Your task to perform on an android device: open app "Speedtest by Ookla" (install if not already installed) and go to login screen Image 0: 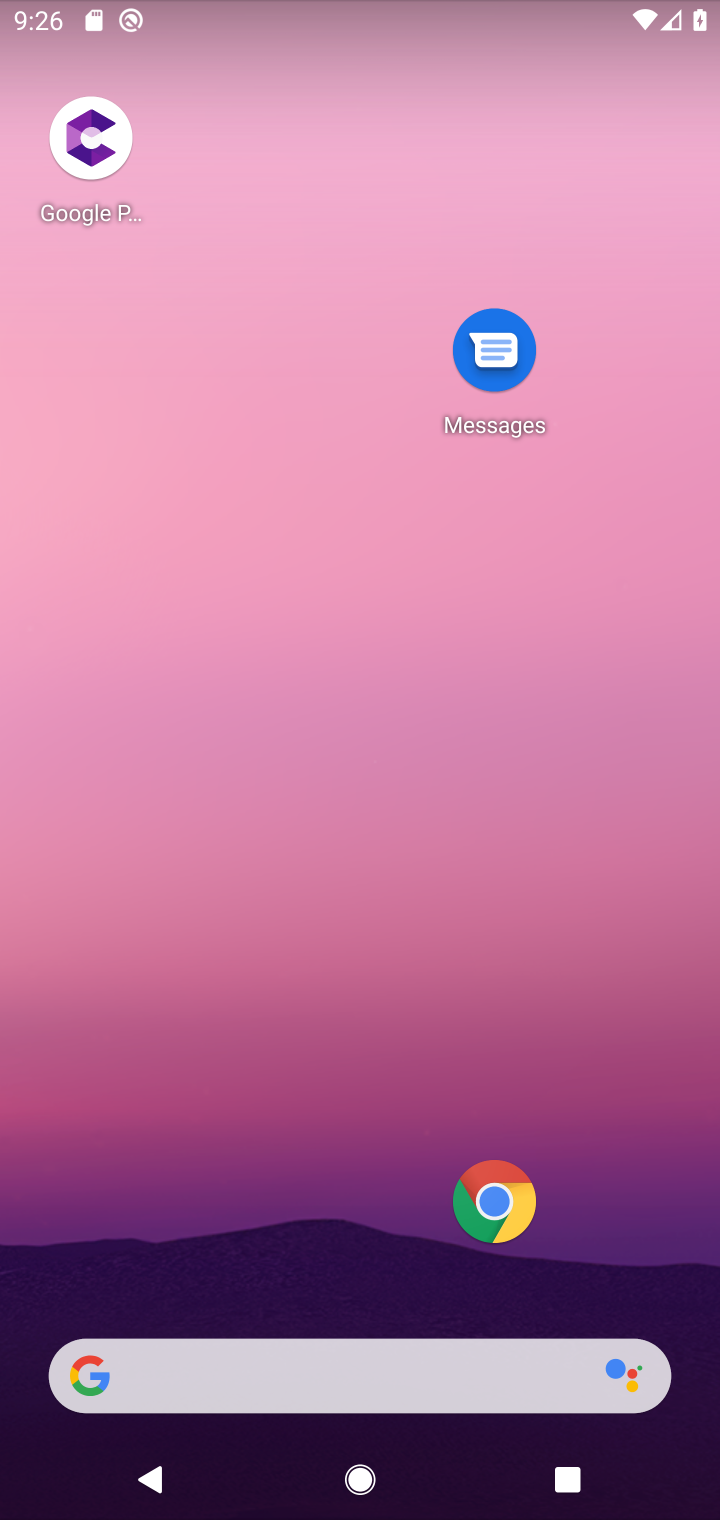
Step 0: drag from (276, 1231) to (319, 331)
Your task to perform on an android device: open app "Speedtest by Ookla" (install if not already installed) and go to login screen Image 1: 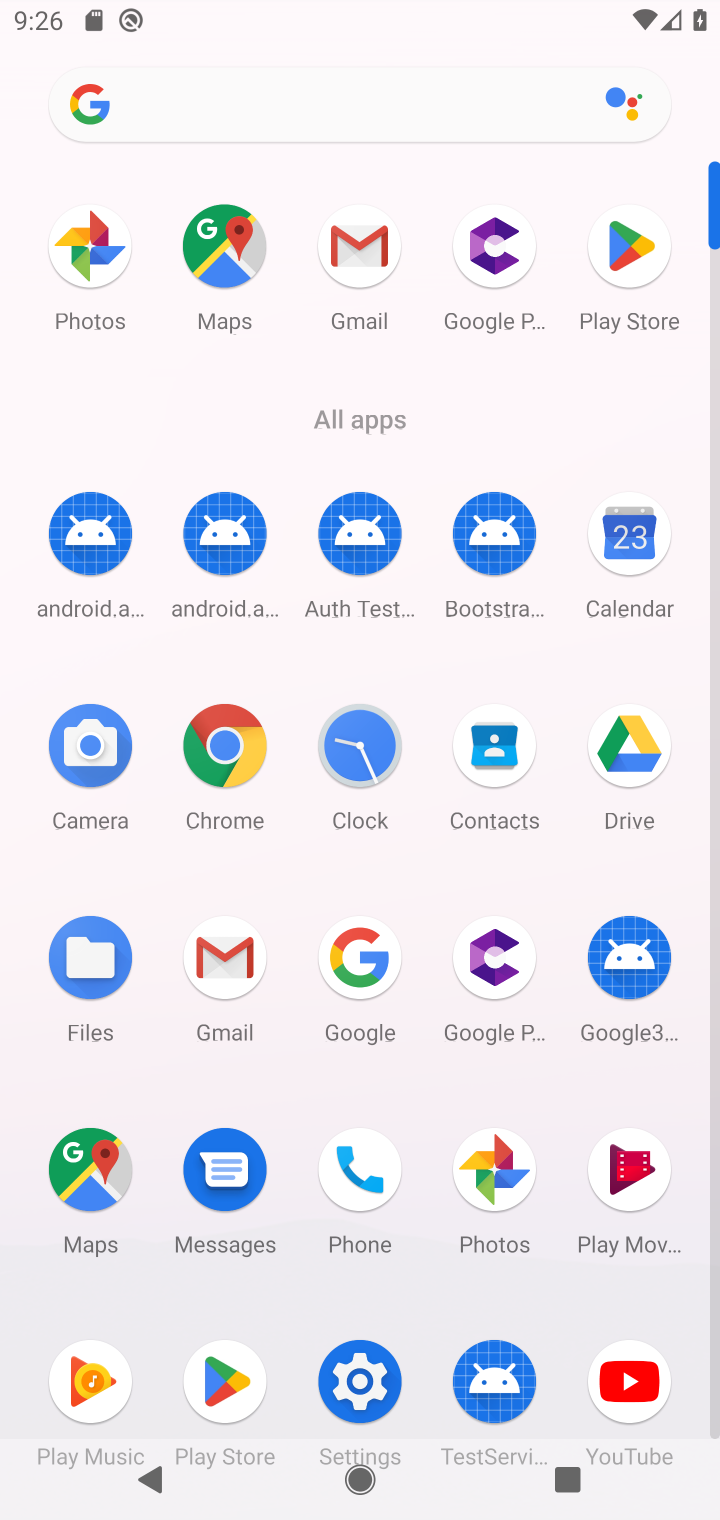
Step 1: click (603, 252)
Your task to perform on an android device: open app "Speedtest by Ookla" (install if not already installed) and go to login screen Image 2: 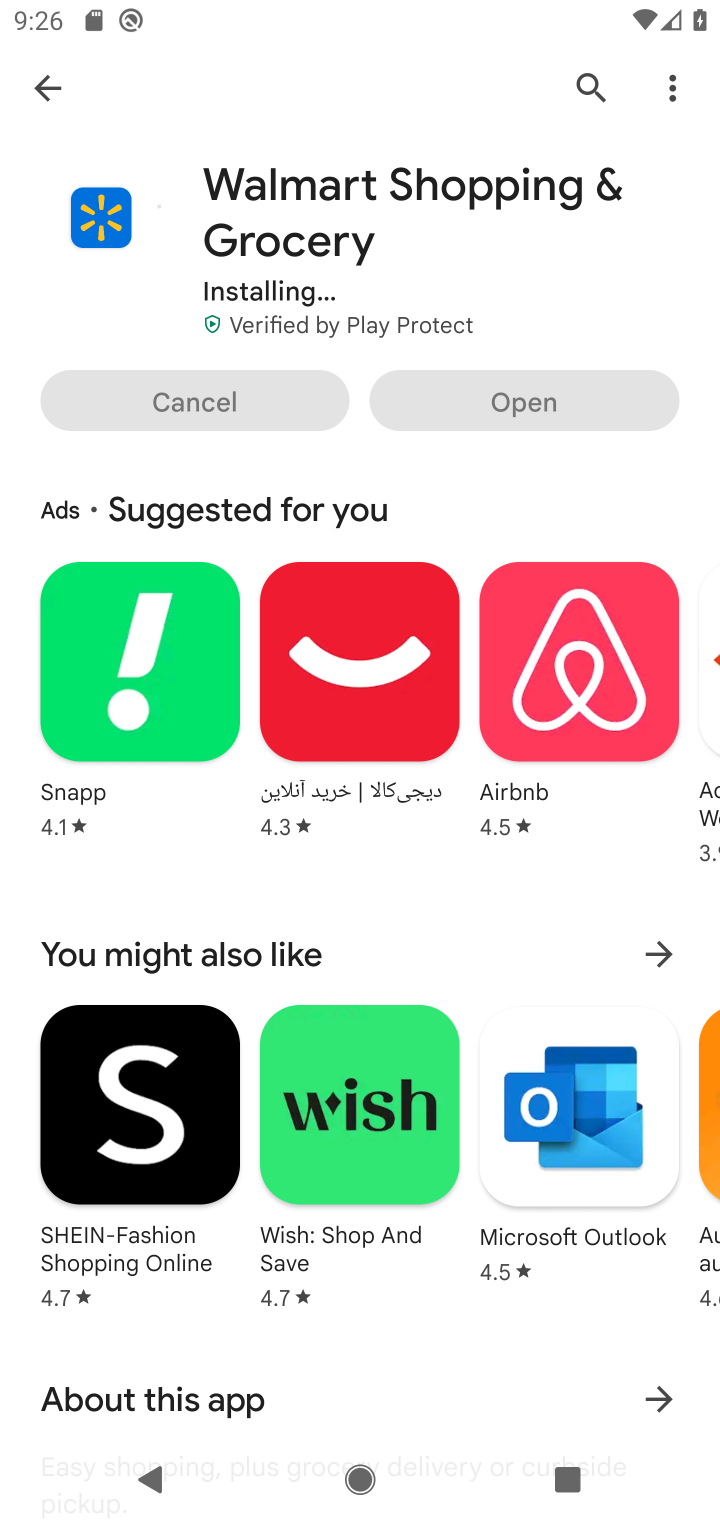
Step 2: click (45, 123)
Your task to perform on an android device: open app "Speedtest by Ookla" (install if not already installed) and go to login screen Image 3: 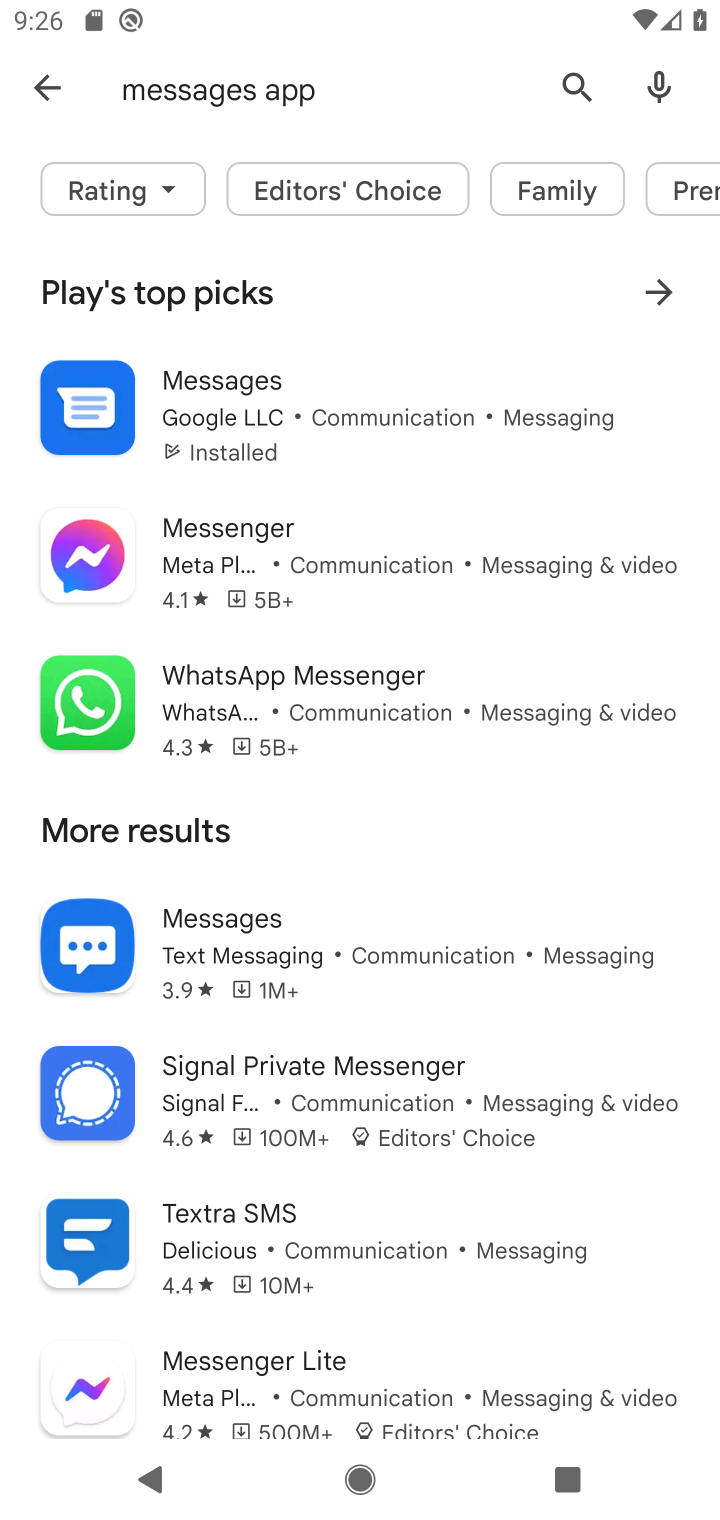
Step 3: click (45, 123)
Your task to perform on an android device: open app "Speedtest by Ookla" (install if not already installed) and go to login screen Image 4: 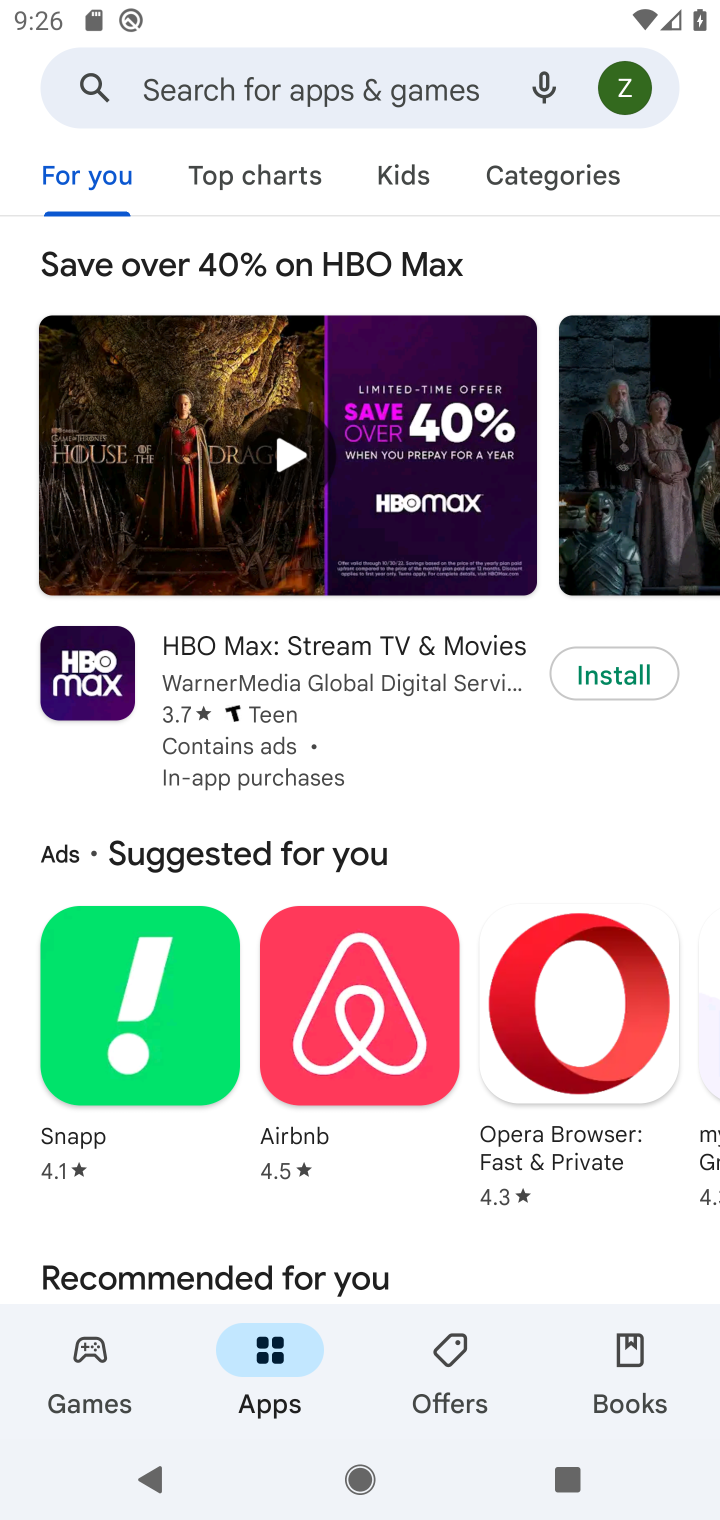
Step 4: click (340, 74)
Your task to perform on an android device: open app "Speedtest by Ookla" (install if not already installed) and go to login screen Image 5: 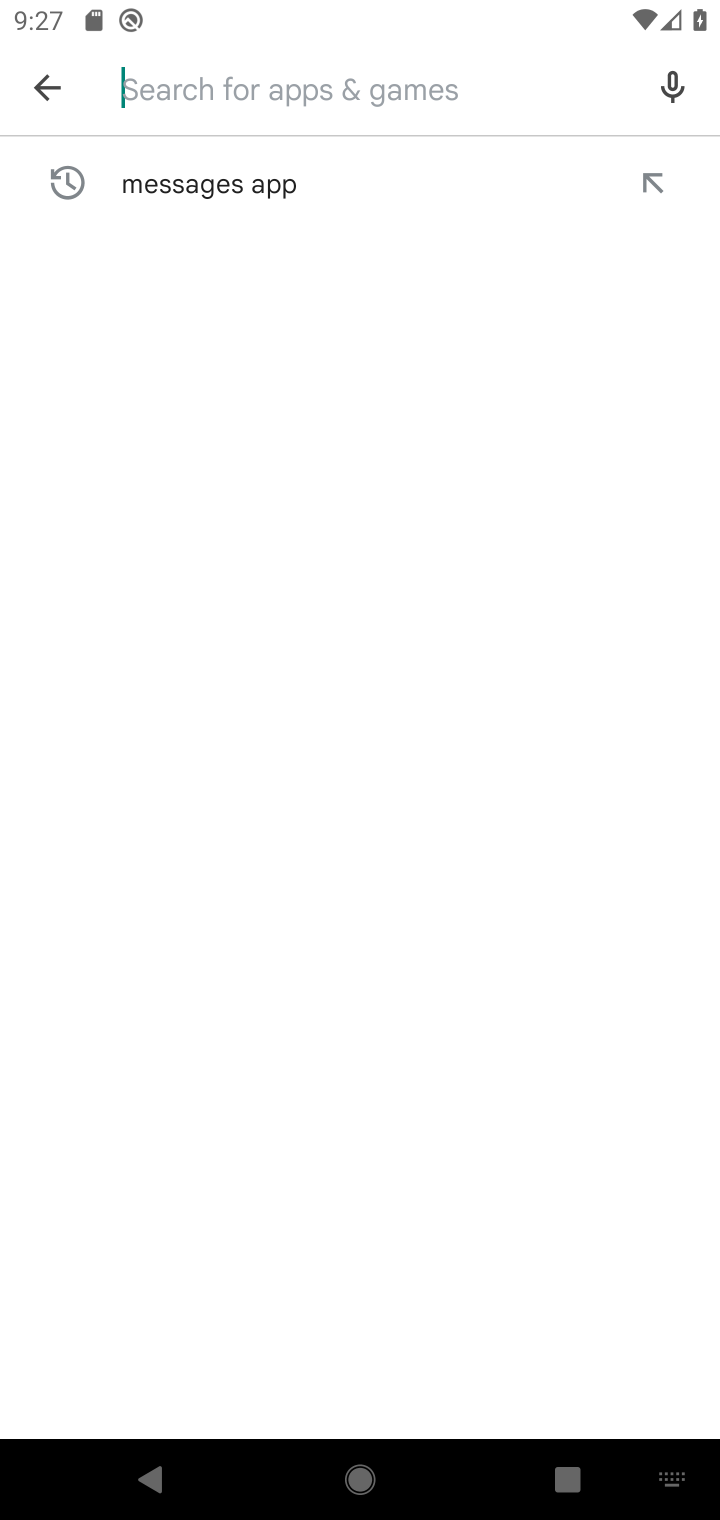
Step 5: type "Speedtest by Ookla "
Your task to perform on an android device: open app "Speedtest by Ookla" (install if not already installed) and go to login screen Image 6: 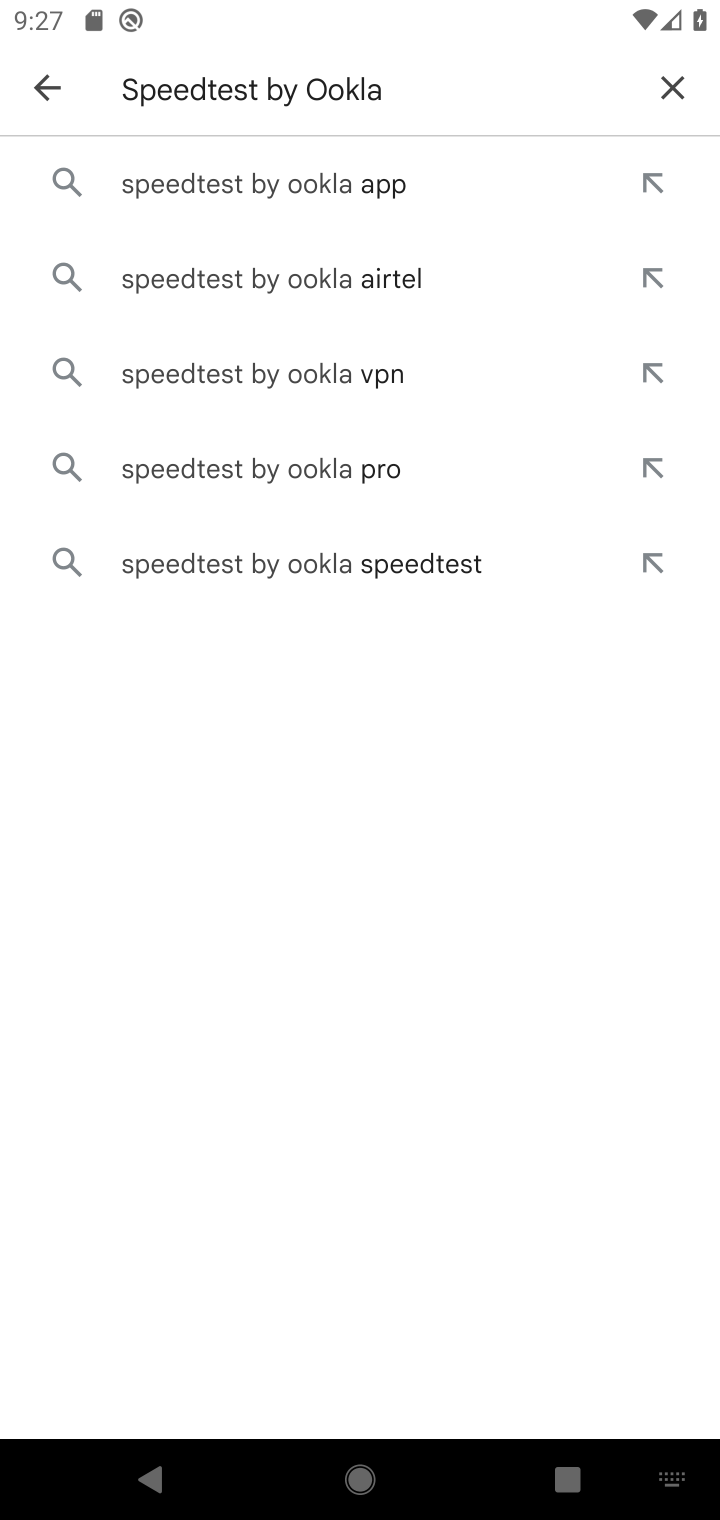
Step 6: click (282, 161)
Your task to perform on an android device: open app "Speedtest by Ookla" (install if not already installed) and go to login screen Image 7: 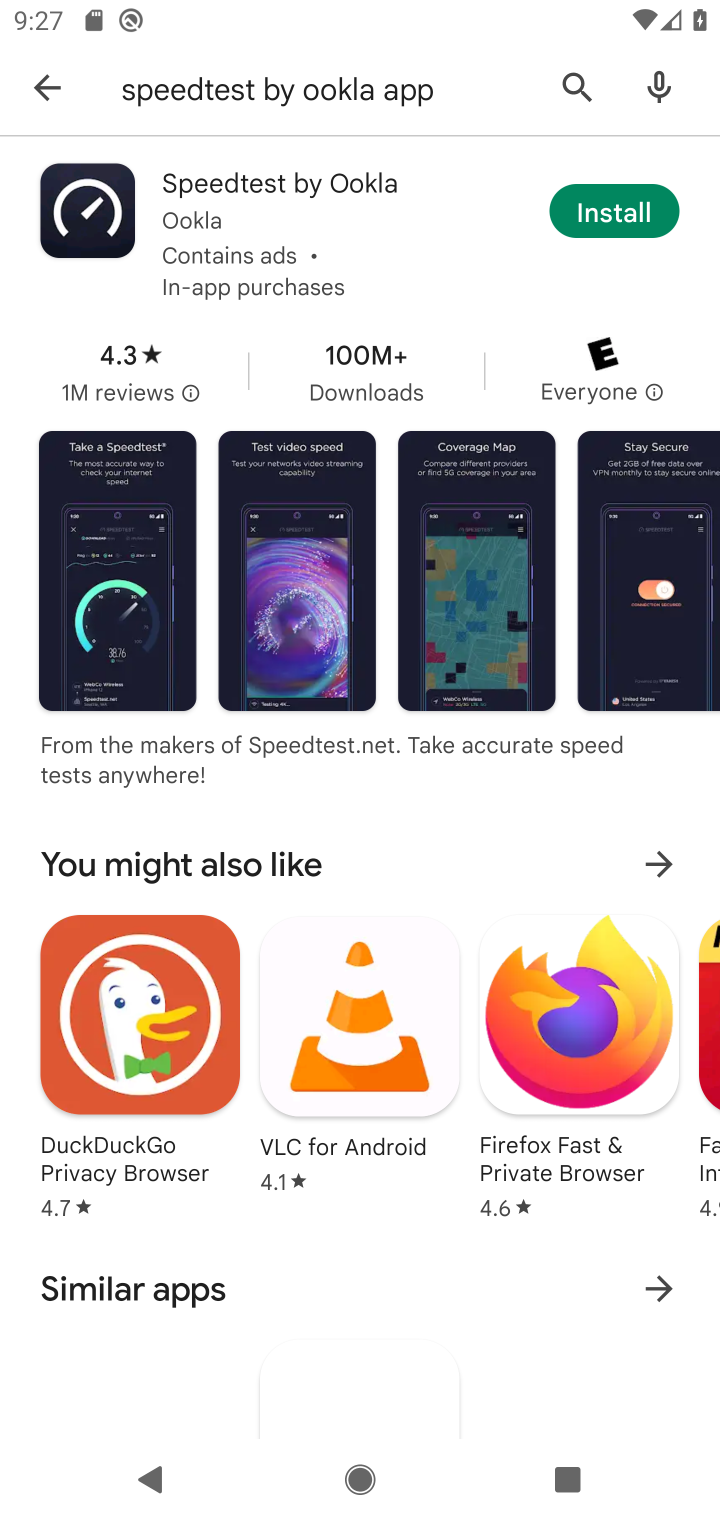
Step 7: click (645, 228)
Your task to perform on an android device: open app "Speedtest by Ookla" (install if not already installed) and go to login screen Image 8: 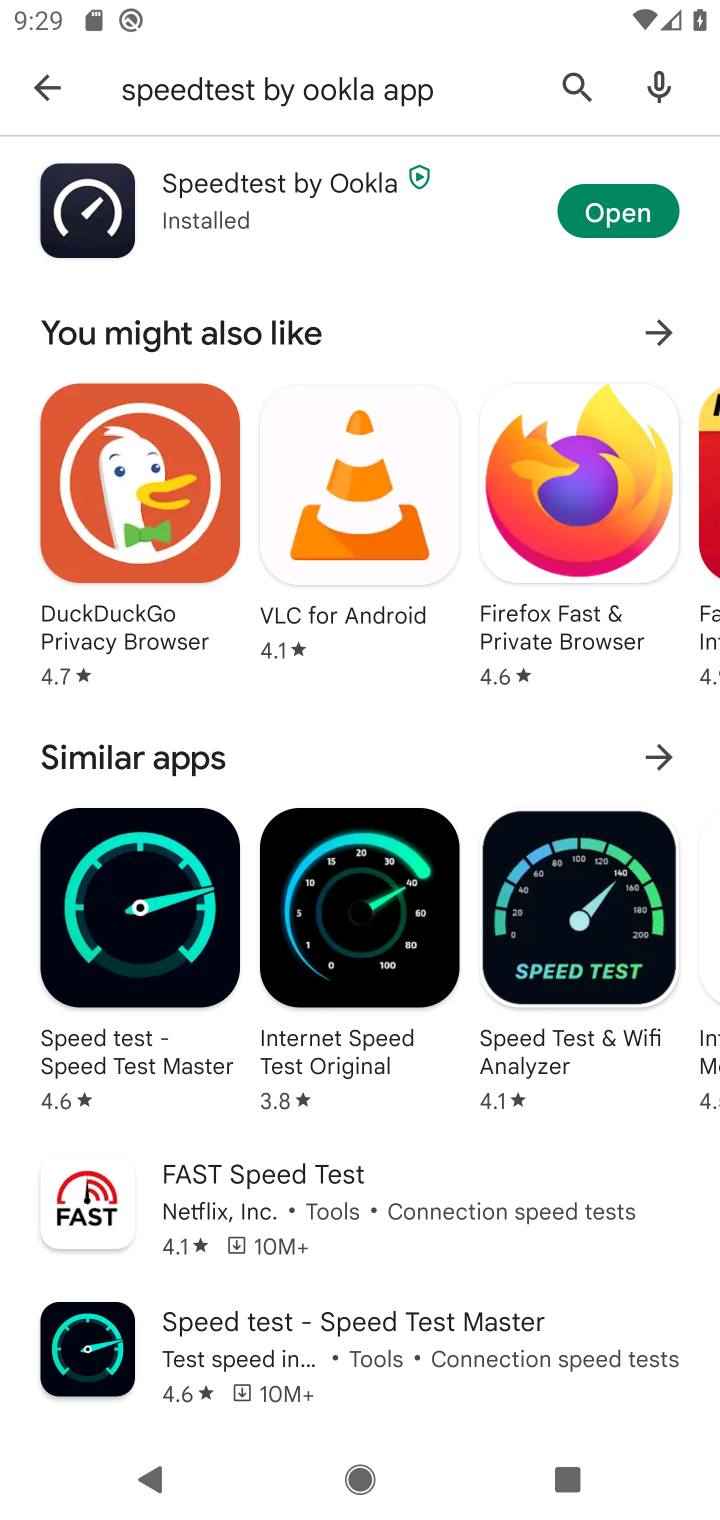
Step 8: task complete